Your task to perform on an android device: change the clock display to show seconds Image 0: 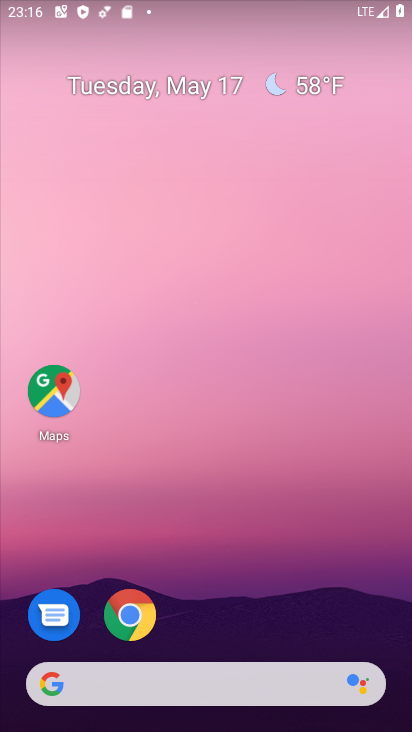
Step 0: drag from (224, 623) to (246, 293)
Your task to perform on an android device: change the clock display to show seconds Image 1: 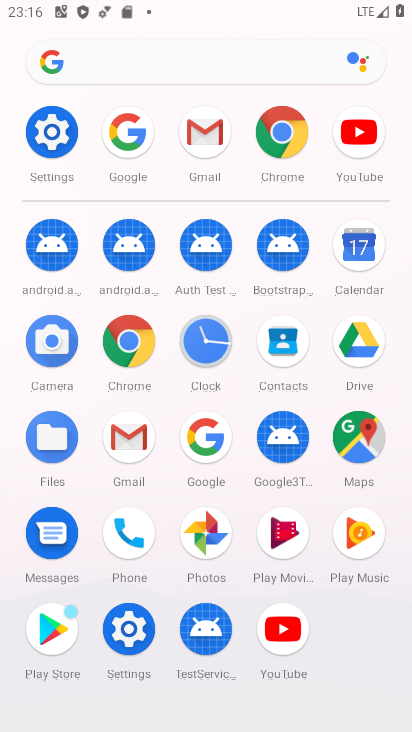
Step 1: click (190, 344)
Your task to perform on an android device: change the clock display to show seconds Image 2: 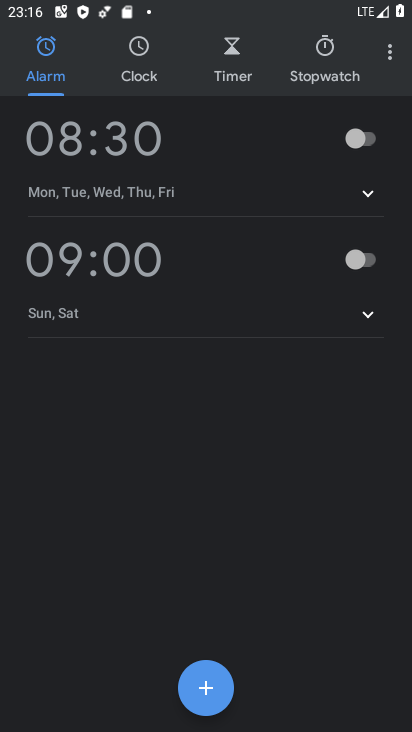
Step 2: click (380, 52)
Your task to perform on an android device: change the clock display to show seconds Image 3: 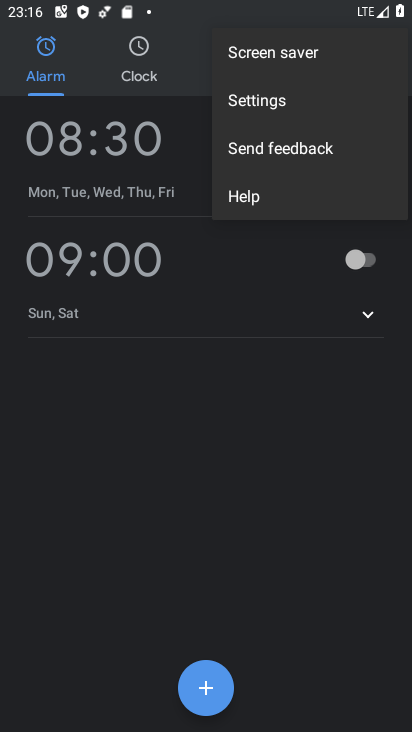
Step 3: click (343, 90)
Your task to perform on an android device: change the clock display to show seconds Image 4: 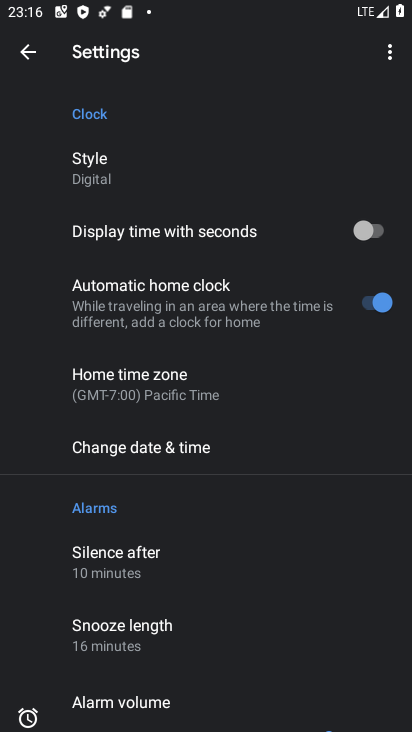
Step 4: click (147, 167)
Your task to perform on an android device: change the clock display to show seconds Image 5: 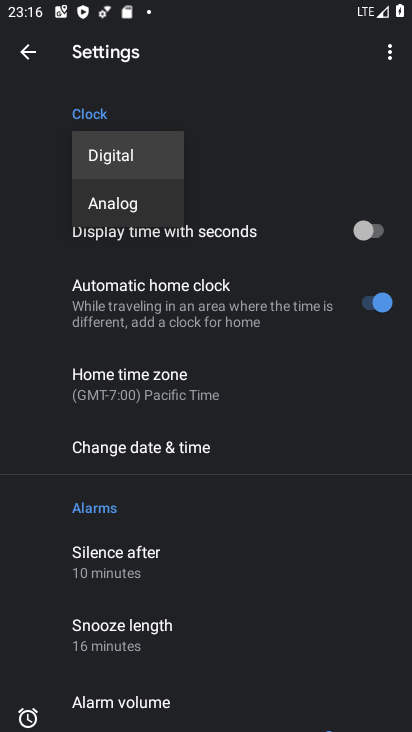
Step 5: click (381, 229)
Your task to perform on an android device: change the clock display to show seconds Image 6: 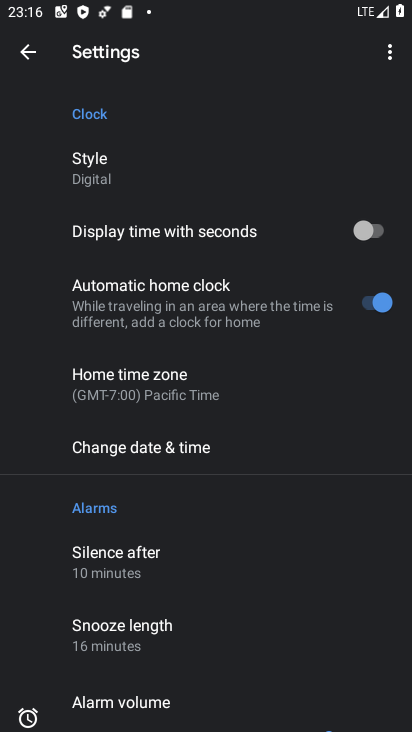
Step 6: click (378, 233)
Your task to perform on an android device: change the clock display to show seconds Image 7: 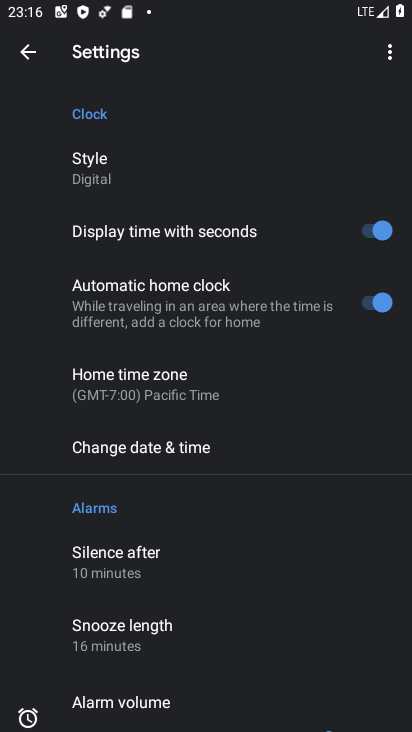
Step 7: task complete